Your task to perform on an android device: Go to Amazon Image 0: 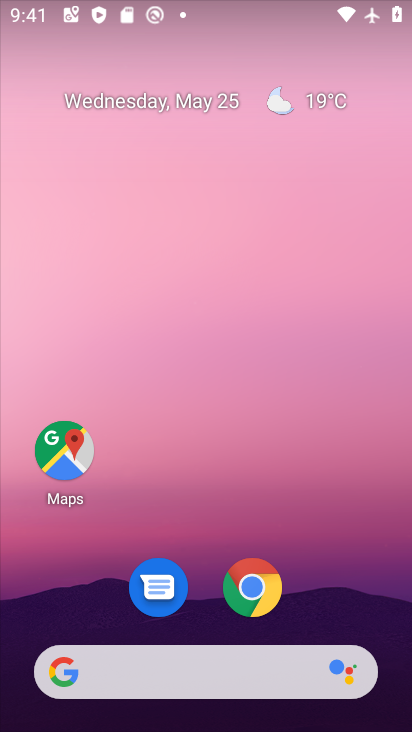
Step 0: click (252, 583)
Your task to perform on an android device: Go to Amazon Image 1: 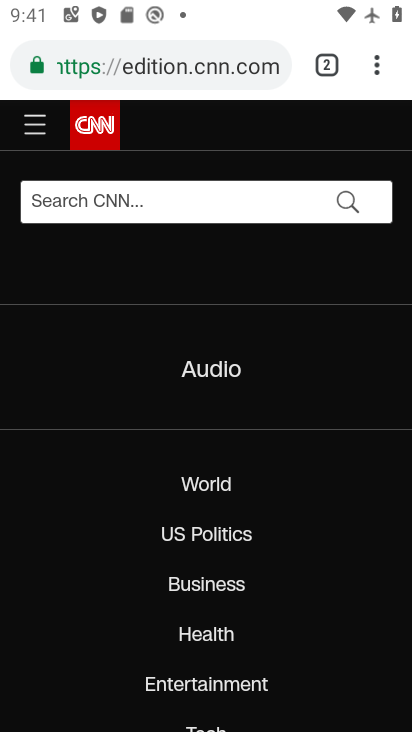
Step 1: click (282, 64)
Your task to perform on an android device: Go to Amazon Image 2: 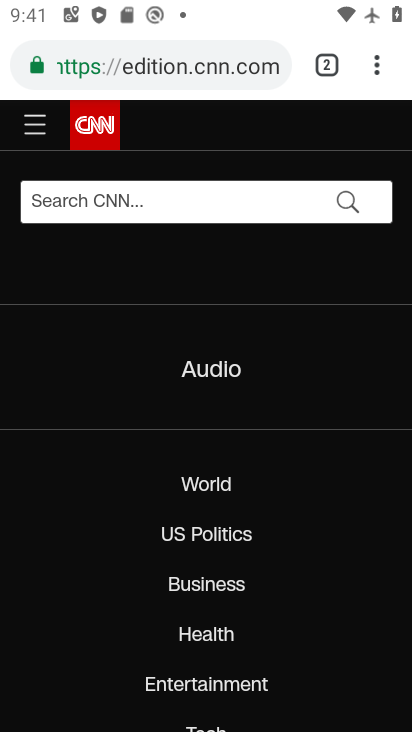
Step 2: click (279, 64)
Your task to perform on an android device: Go to Amazon Image 3: 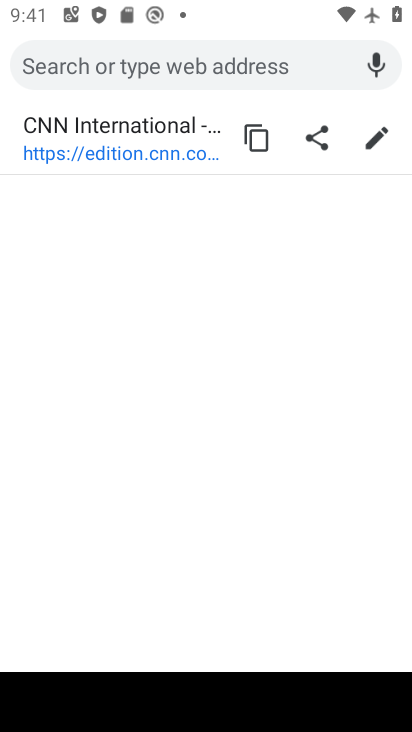
Step 3: type "amazon"
Your task to perform on an android device: Go to Amazon Image 4: 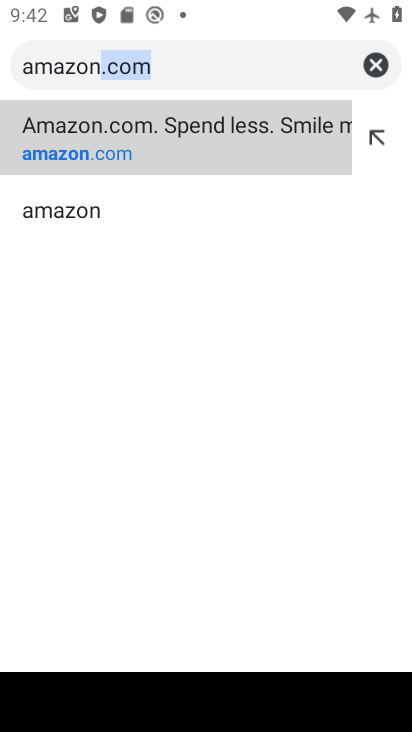
Step 4: click (92, 130)
Your task to perform on an android device: Go to Amazon Image 5: 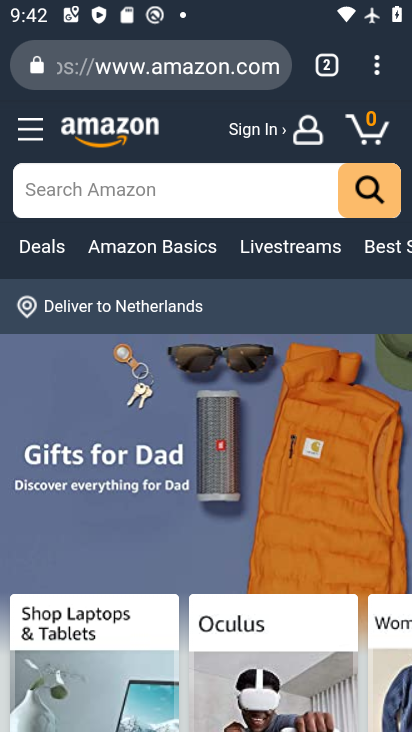
Step 5: task complete